Your task to perform on an android device: check android version Image 0: 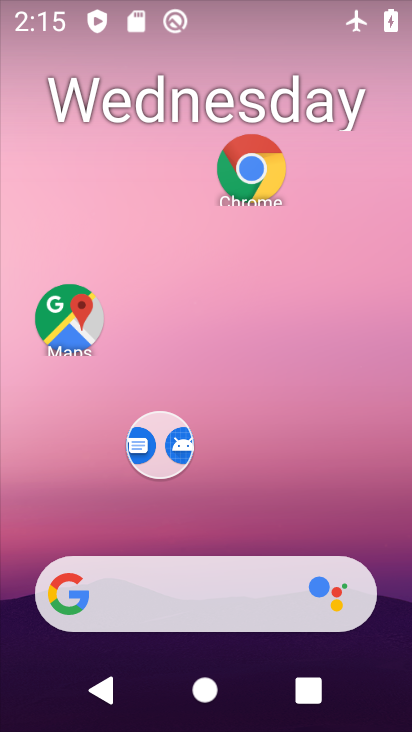
Step 0: drag from (224, 532) to (292, 3)
Your task to perform on an android device: check android version Image 1: 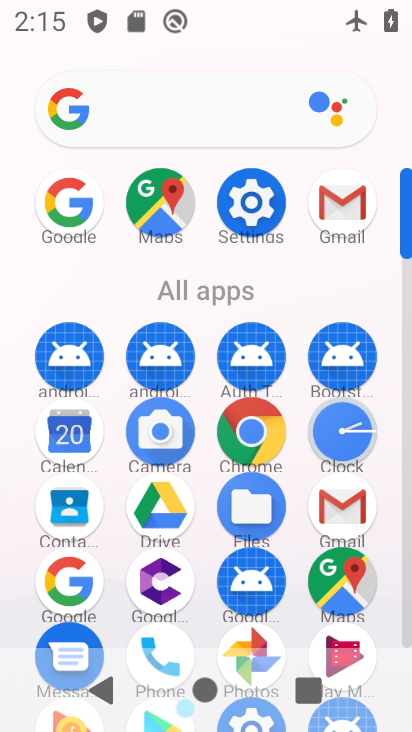
Step 1: click (262, 207)
Your task to perform on an android device: check android version Image 2: 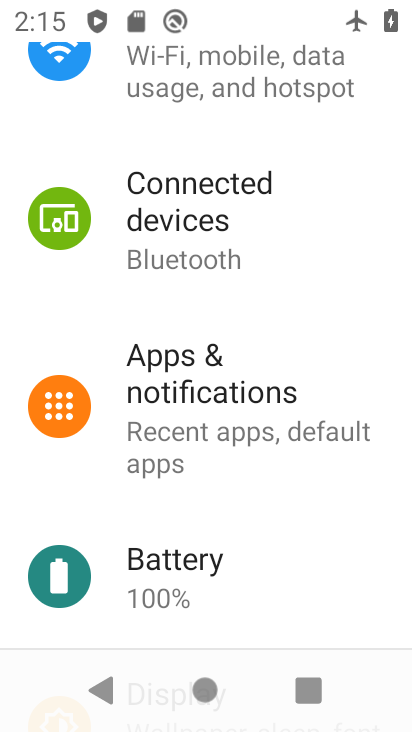
Step 2: drag from (237, 568) to (235, 31)
Your task to perform on an android device: check android version Image 3: 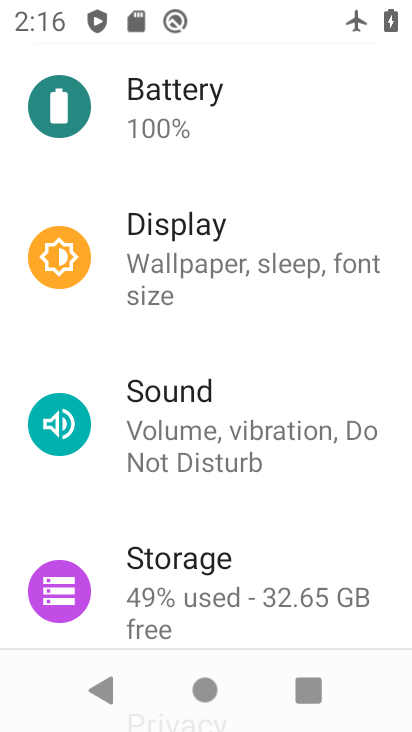
Step 3: drag from (114, 554) to (188, 18)
Your task to perform on an android device: check android version Image 4: 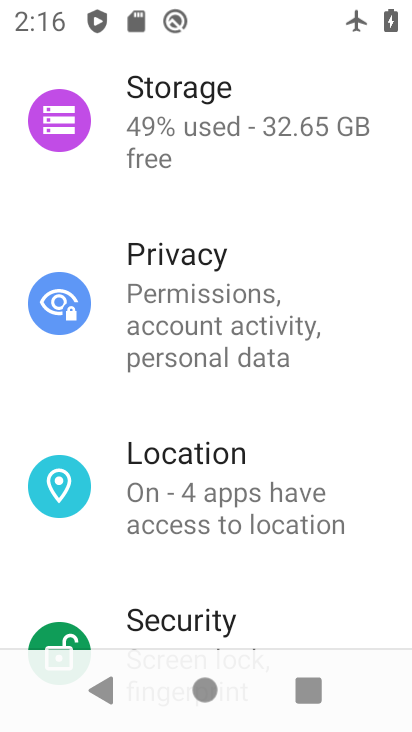
Step 4: drag from (305, 584) to (291, 81)
Your task to perform on an android device: check android version Image 5: 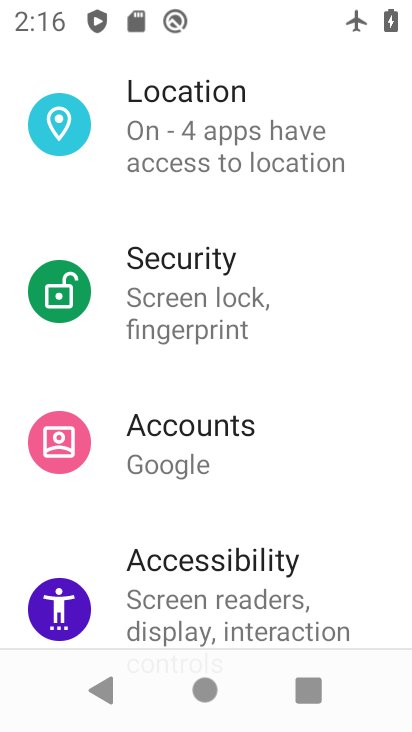
Step 5: drag from (228, 536) to (231, 28)
Your task to perform on an android device: check android version Image 6: 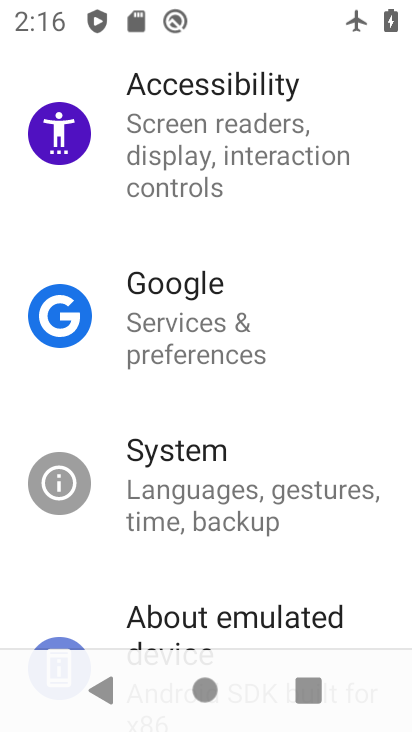
Step 6: drag from (250, 559) to (268, 190)
Your task to perform on an android device: check android version Image 7: 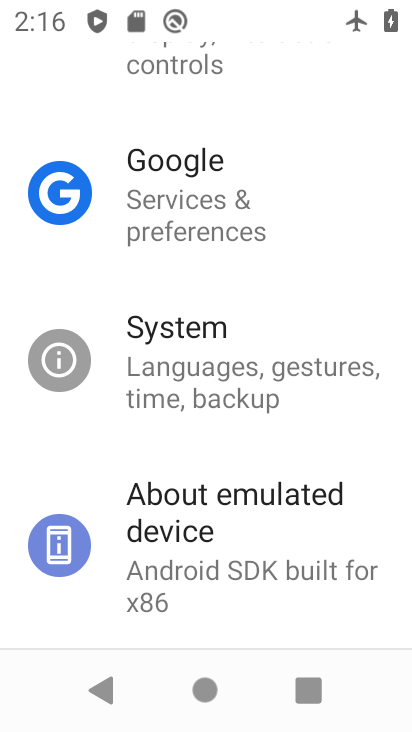
Step 7: click (251, 506)
Your task to perform on an android device: check android version Image 8: 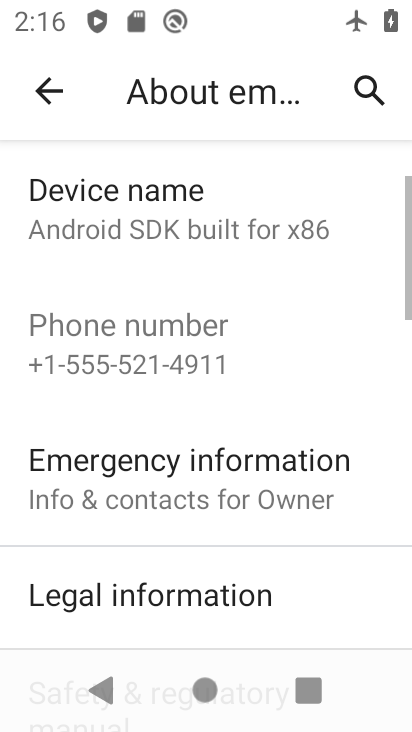
Step 8: drag from (181, 492) to (184, 50)
Your task to perform on an android device: check android version Image 9: 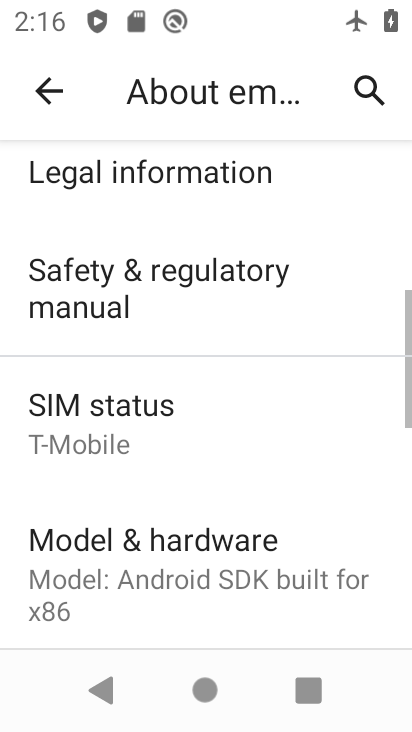
Step 9: drag from (93, 538) to (124, 53)
Your task to perform on an android device: check android version Image 10: 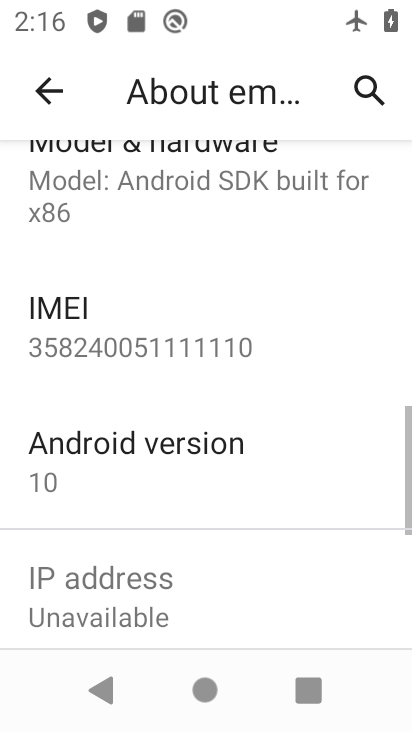
Step 10: click (157, 440)
Your task to perform on an android device: check android version Image 11: 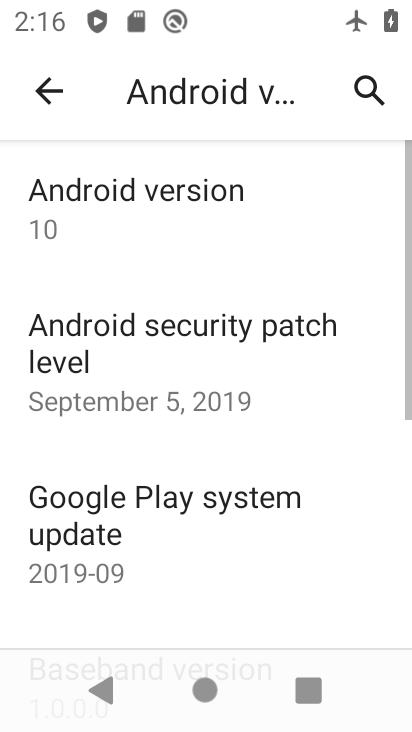
Step 11: task complete